Your task to perform on an android device: Go to internet settings Image 0: 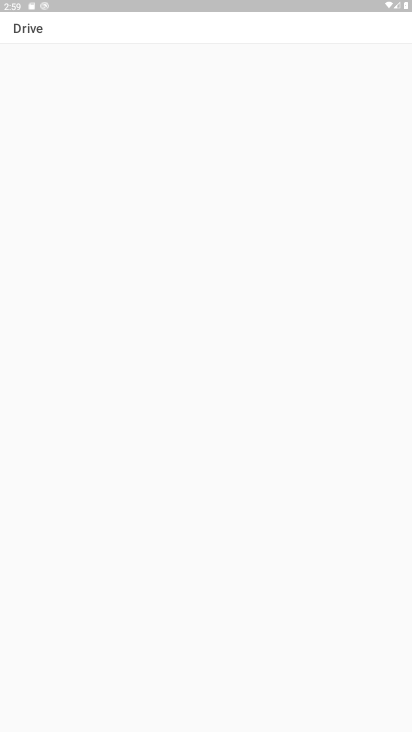
Step 0: press home button
Your task to perform on an android device: Go to internet settings Image 1: 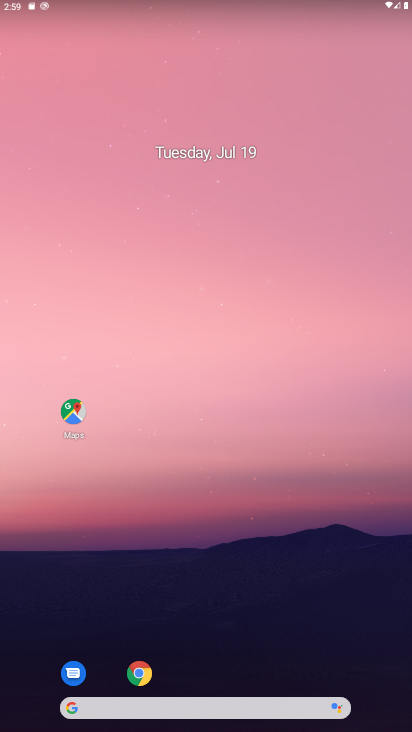
Step 1: drag from (203, 671) to (106, 0)
Your task to perform on an android device: Go to internet settings Image 2: 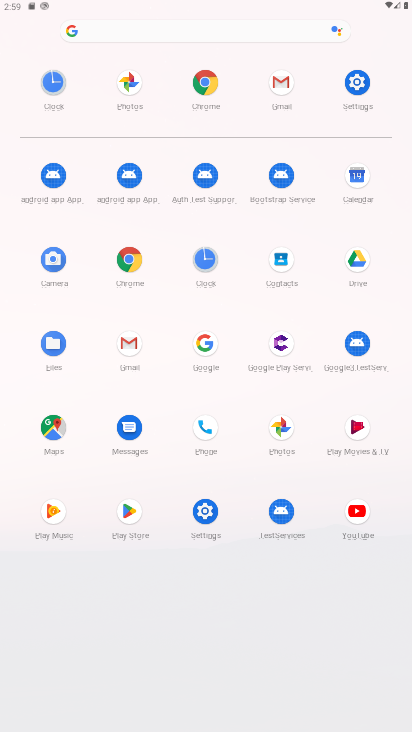
Step 2: click (208, 519)
Your task to perform on an android device: Go to internet settings Image 3: 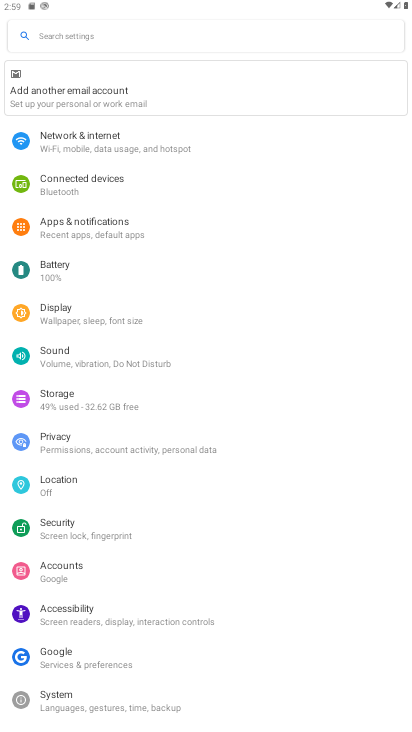
Step 3: click (107, 149)
Your task to perform on an android device: Go to internet settings Image 4: 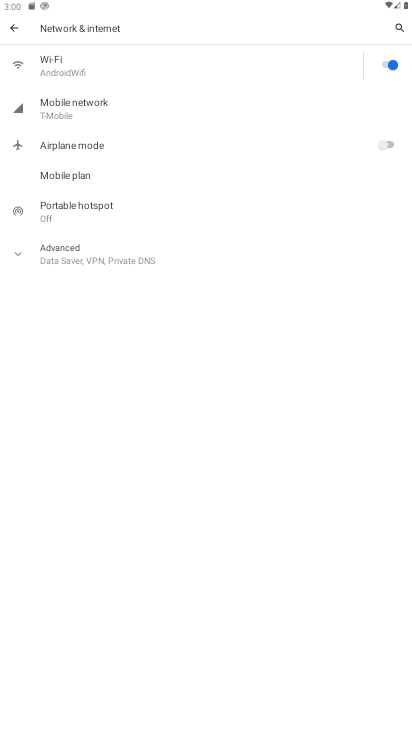
Step 4: task complete